Your task to perform on an android device: find which apps use the phone's location Image 0: 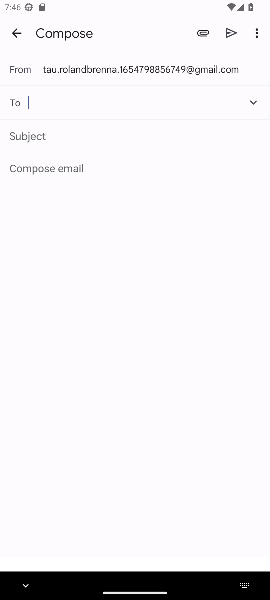
Step 0: press home button
Your task to perform on an android device: find which apps use the phone's location Image 1: 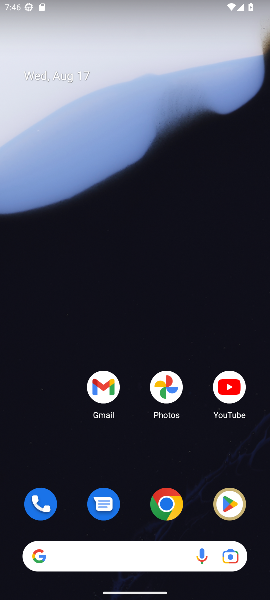
Step 1: drag from (140, 469) to (213, 102)
Your task to perform on an android device: find which apps use the phone's location Image 2: 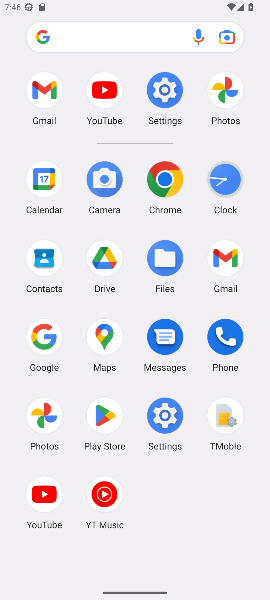
Step 2: click (176, 106)
Your task to perform on an android device: find which apps use the phone's location Image 3: 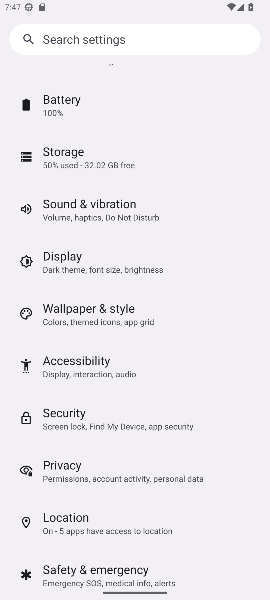
Step 3: click (101, 528)
Your task to perform on an android device: find which apps use the phone's location Image 4: 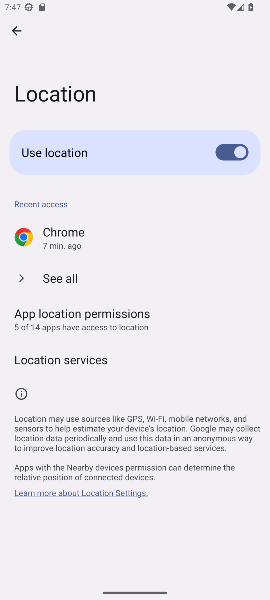
Step 4: click (89, 325)
Your task to perform on an android device: find which apps use the phone's location Image 5: 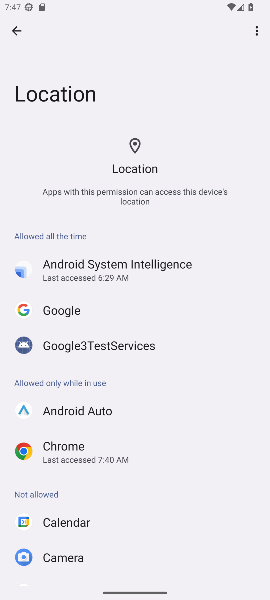
Step 5: drag from (133, 488) to (167, 243)
Your task to perform on an android device: find which apps use the phone's location Image 6: 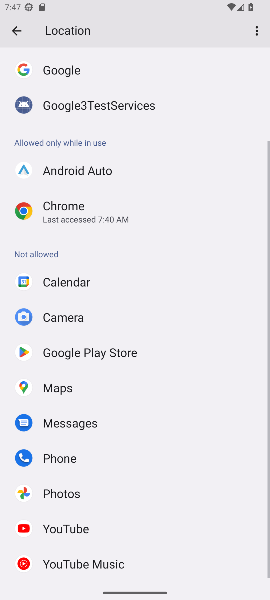
Step 6: click (133, 509)
Your task to perform on an android device: find which apps use the phone's location Image 7: 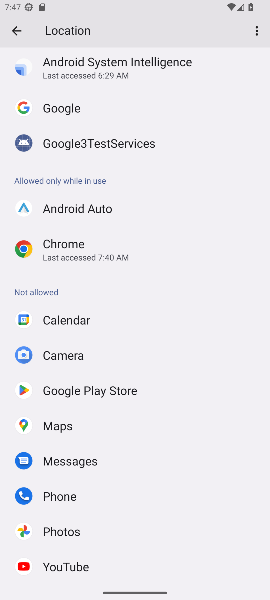
Step 7: task complete